Your task to perform on an android device: check data usage Image 0: 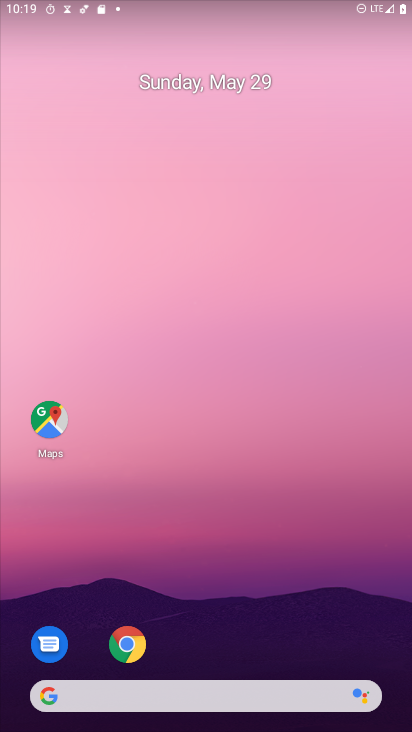
Step 0: drag from (141, 725) to (179, 72)
Your task to perform on an android device: check data usage Image 1: 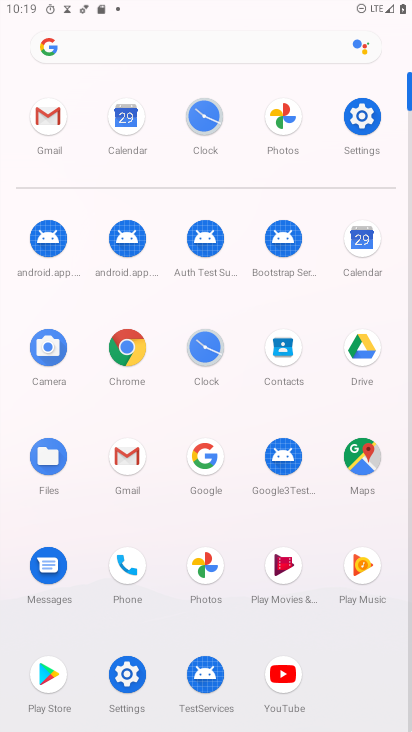
Step 1: click (358, 115)
Your task to perform on an android device: check data usage Image 2: 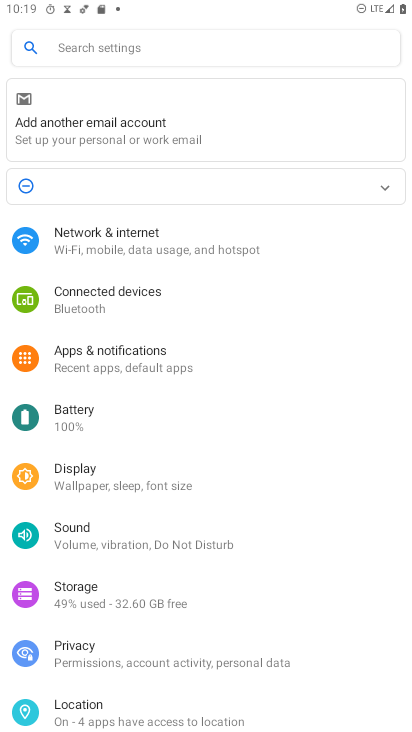
Step 2: click (165, 255)
Your task to perform on an android device: check data usage Image 3: 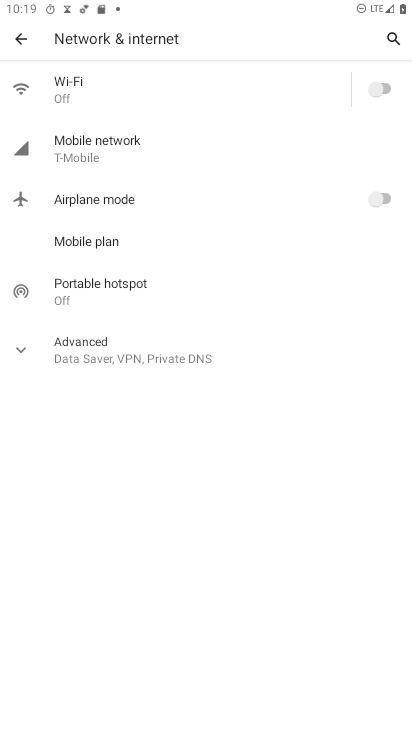
Step 3: click (128, 358)
Your task to perform on an android device: check data usage Image 4: 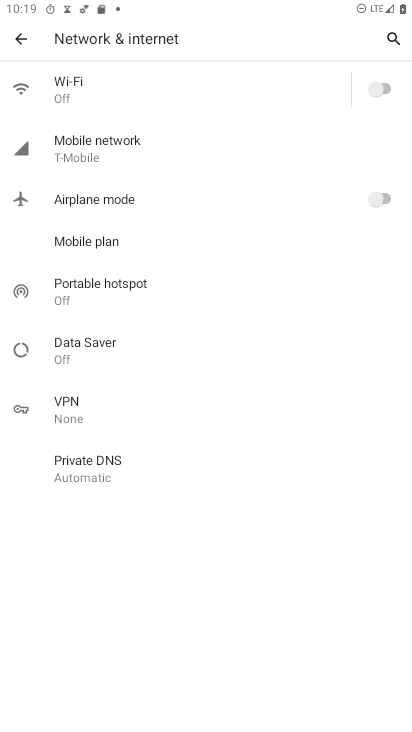
Step 4: click (151, 163)
Your task to perform on an android device: check data usage Image 5: 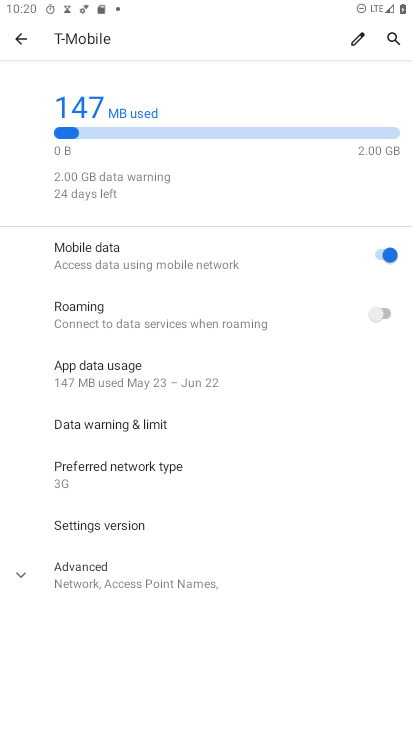
Step 5: task complete